Your task to perform on an android device: change the clock display to show seconds Image 0: 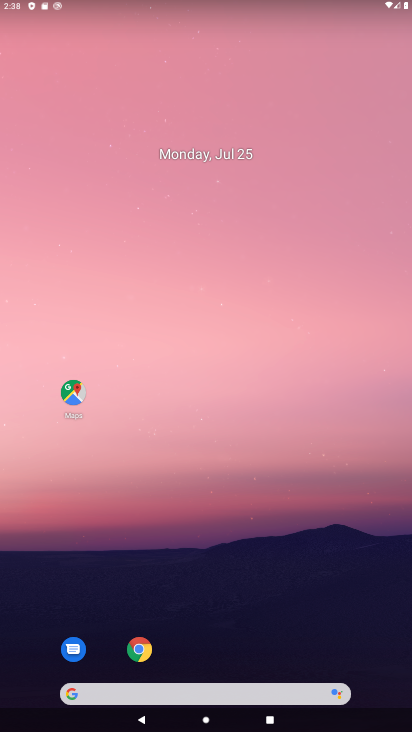
Step 0: drag from (243, 632) to (325, 158)
Your task to perform on an android device: change the clock display to show seconds Image 1: 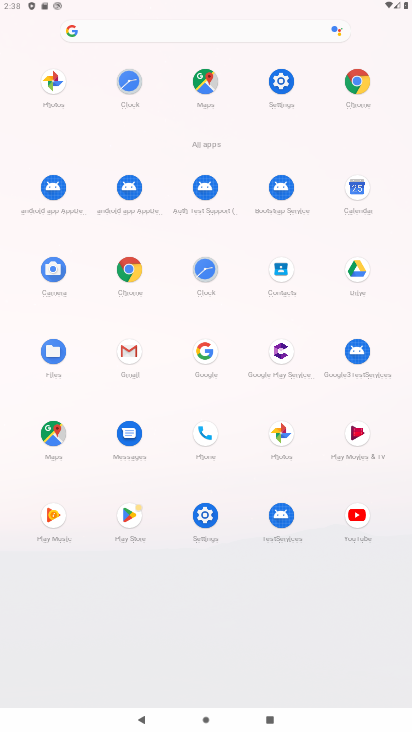
Step 1: click (206, 277)
Your task to perform on an android device: change the clock display to show seconds Image 2: 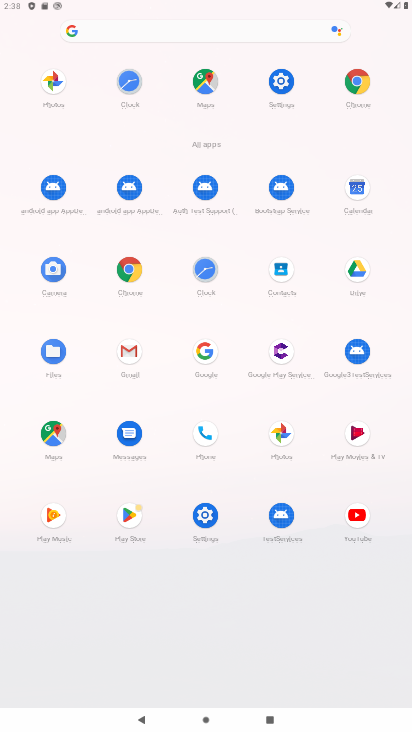
Step 2: click (206, 277)
Your task to perform on an android device: change the clock display to show seconds Image 3: 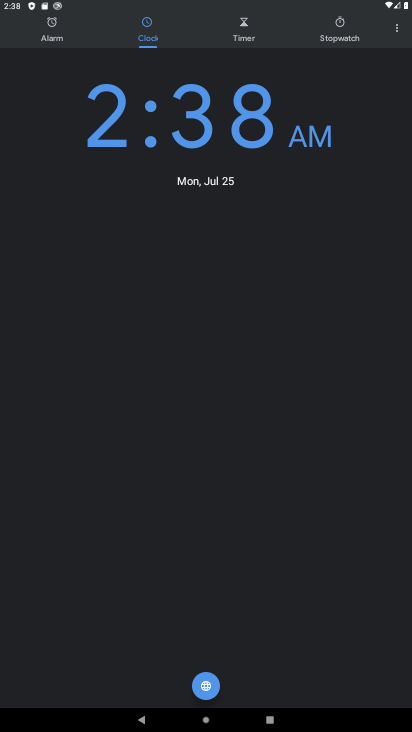
Step 3: click (395, 26)
Your task to perform on an android device: change the clock display to show seconds Image 4: 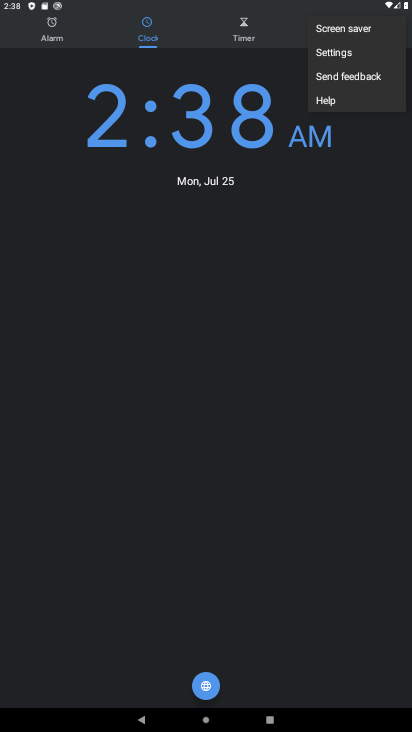
Step 4: click (344, 51)
Your task to perform on an android device: change the clock display to show seconds Image 5: 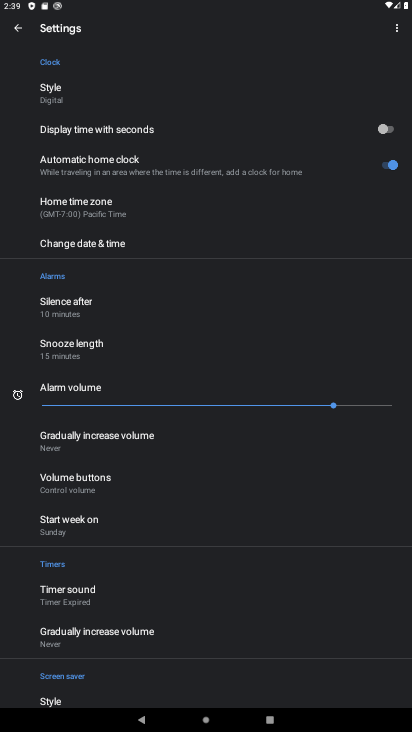
Step 5: click (387, 128)
Your task to perform on an android device: change the clock display to show seconds Image 6: 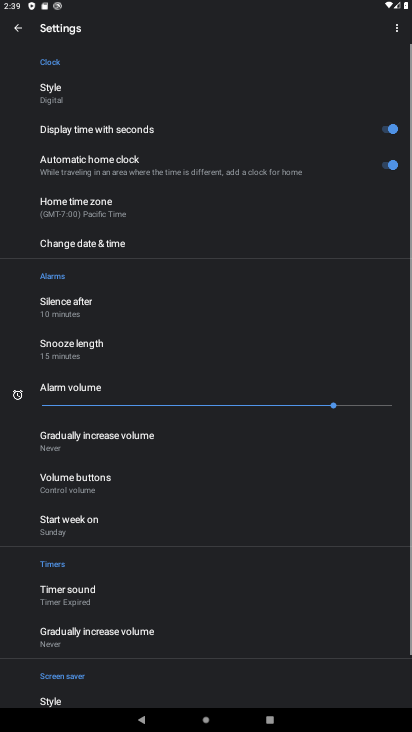
Step 6: task complete